Your task to perform on an android device: open chrome privacy settings Image 0: 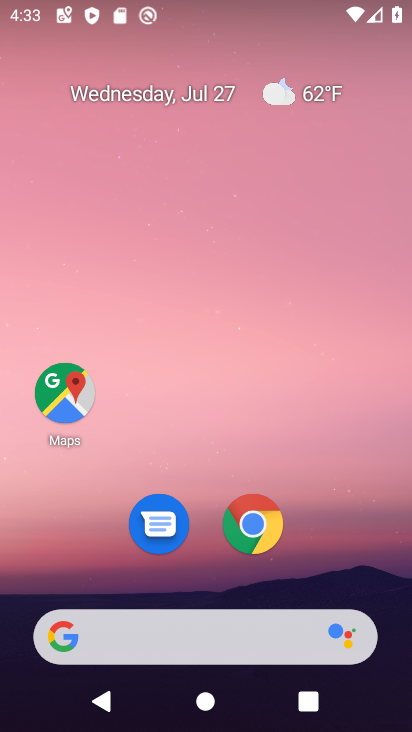
Step 0: click (264, 527)
Your task to perform on an android device: open chrome privacy settings Image 1: 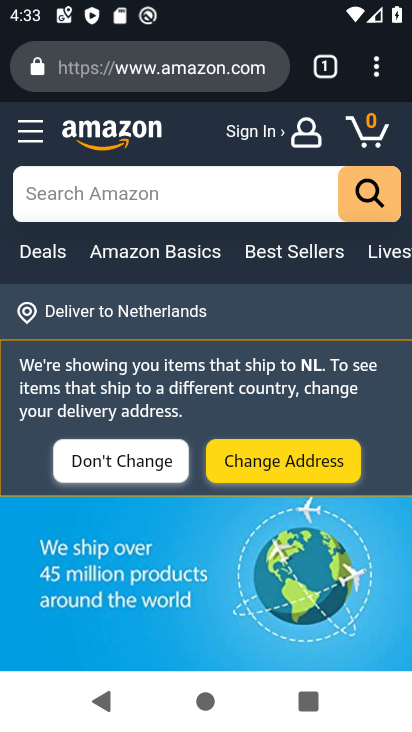
Step 1: click (378, 69)
Your task to perform on an android device: open chrome privacy settings Image 2: 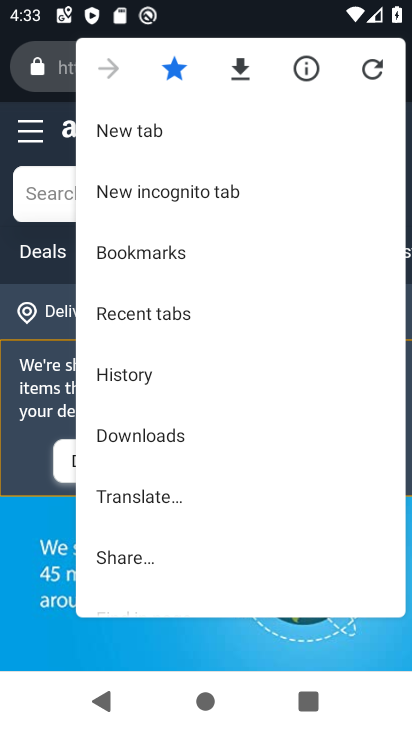
Step 2: drag from (254, 463) to (233, 149)
Your task to perform on an android device: open chrome privacy settings Image 3: 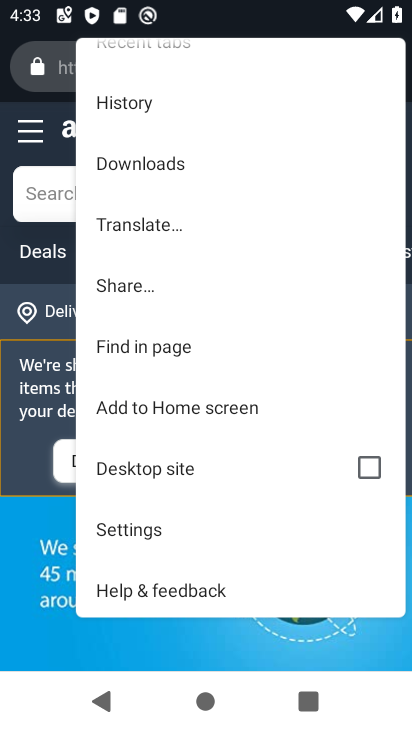
Step 3: drag from (248, 166) to (285, 440)
Your task to perform on an android device: open chrome privacy settings Image 4: 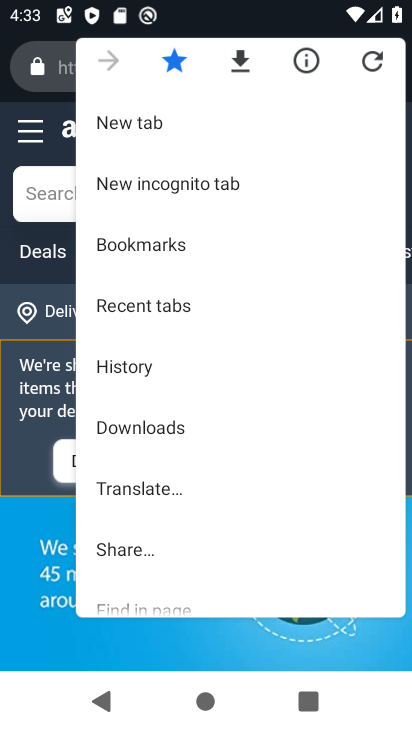
Step 4: drag from (228, 378) to (247, 175)
Your task to perform on an android device: open chrome privacy settings Image 5: 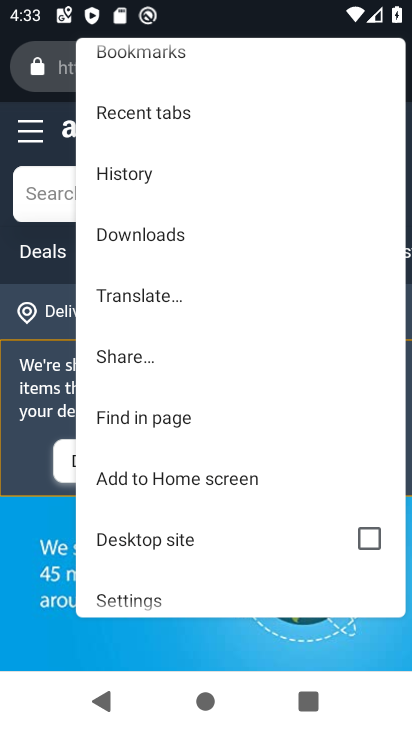
Step 5: drag from (253, 144) to (277, 446)
Your task to perform on an android device: open chrome privacy settings Image 6: 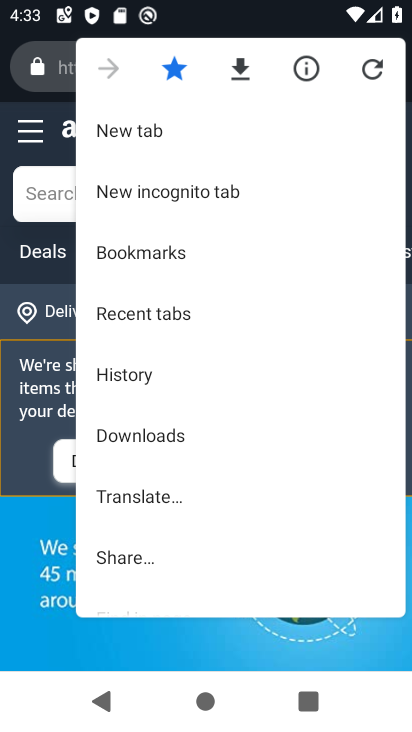
Step 6: drag from (277, 443) to (274, 100)
Your task to perform on an android device: open chrome privacy settings Image 7: 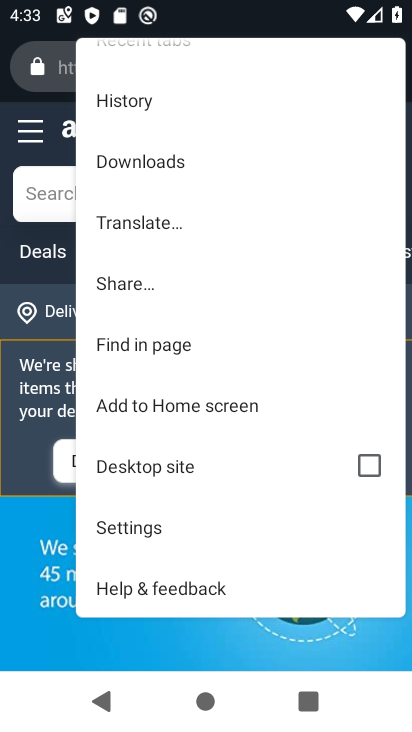
Step 7: click (150, 526)
Your task to perform on an android device: open chrome privacy settings Image 8: 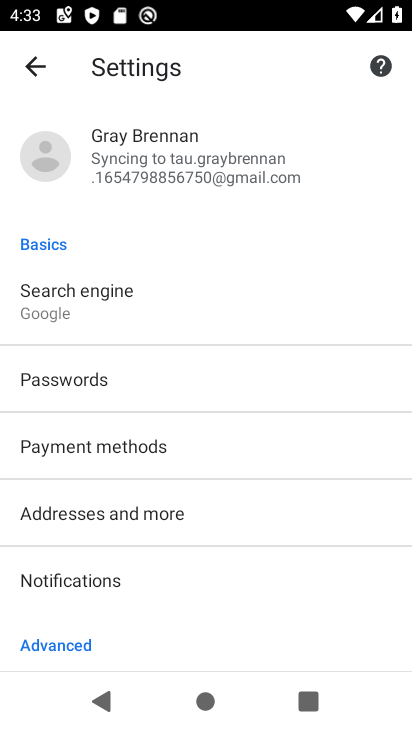
Step 8: drag from (268, 512) to (283, 219)
Your task to perform on an android device: open chrome privacy settings Image 9: 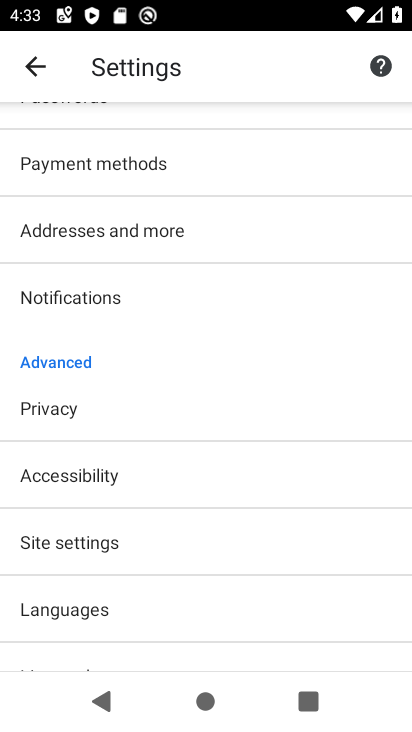
Step 9: click (57, 412)
Your task to perform on an android device: open chrome privacy settings Image 10: 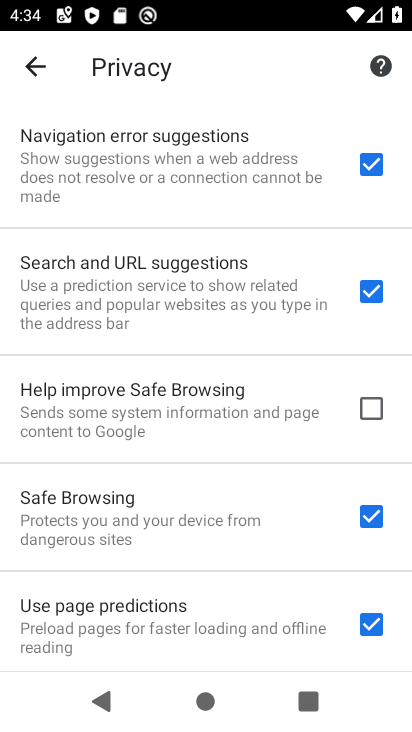
Step 10: task complete